Your task to perform on an android device: Go to battery settings Image 0: 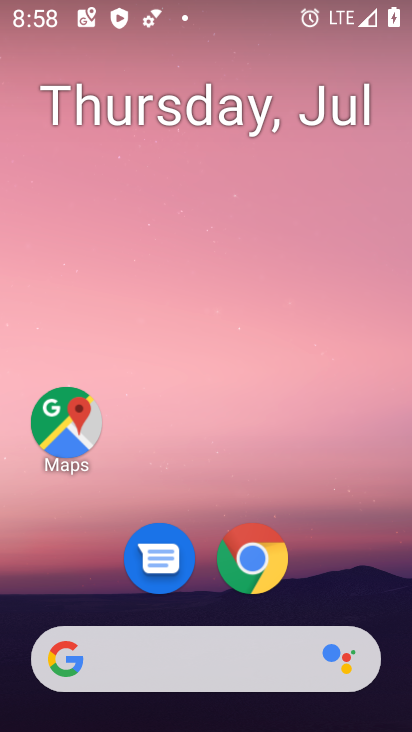
Step 0: drag from (201, 639) to (218, 264)
Your task to perform on an android device: Go to battery settings Image 1: 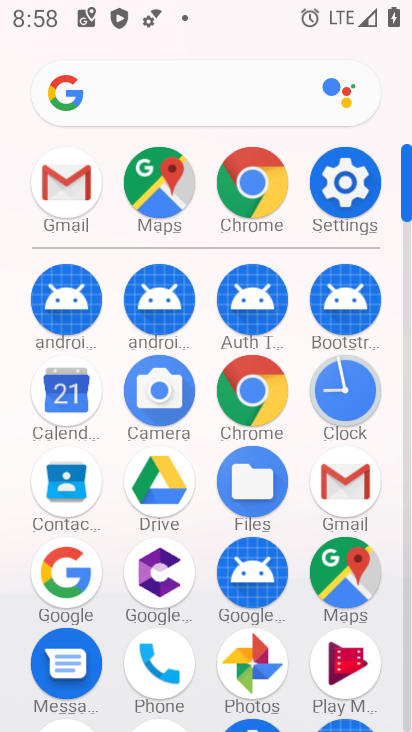
Step 1: click (343, 214)
Your task to perform on an android device: Go to battery settings Image 2: 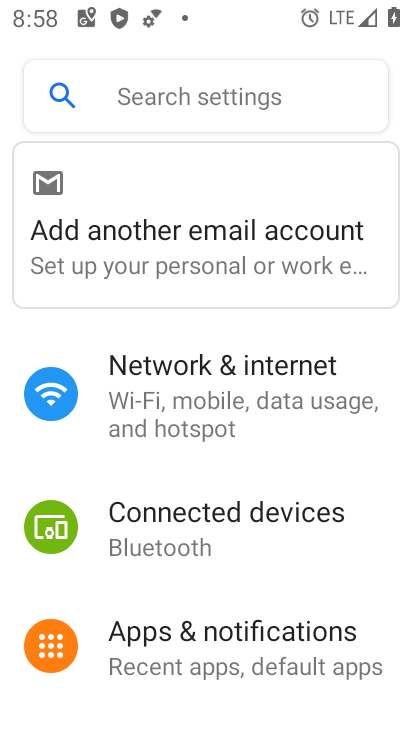
Step 2: drag from (182, 561) to (201, 339)
Your task to perform on an android device: Go to battery settings Image 3: 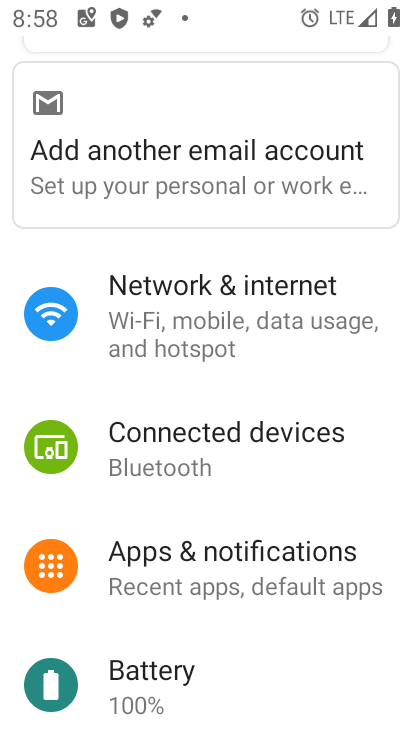
Step 3: click (170, 689)
Your task to perform on an android device: Go to battery settings Image 4: 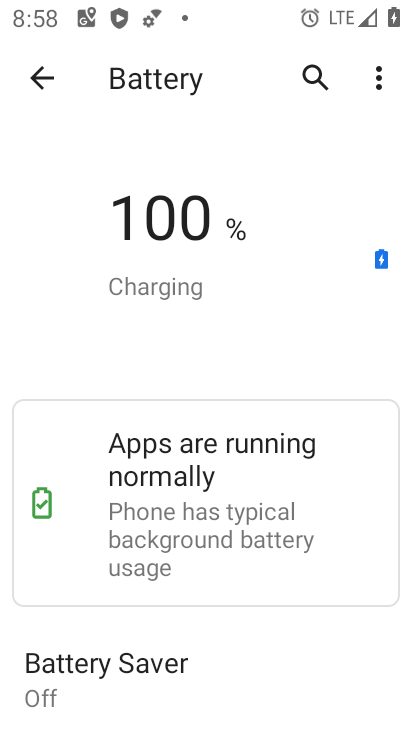
Step 4: task complete